Your task to perform on an android device: Do I have any events today? Image 0: 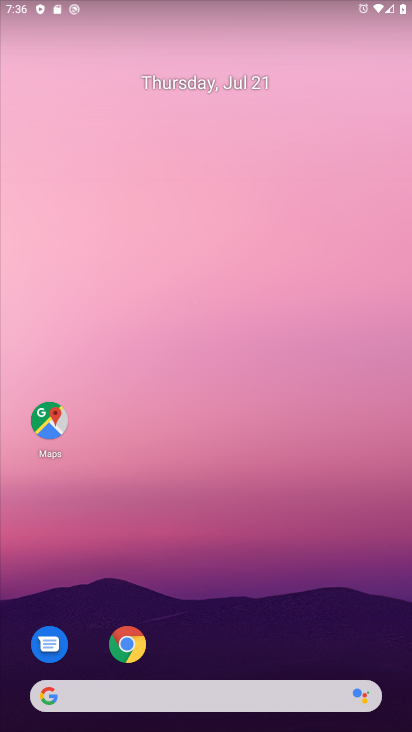
Step 0: drag from (238, 617) to (231, 173)
Your task to perform on an android device: Do I have any events today? Image 1: 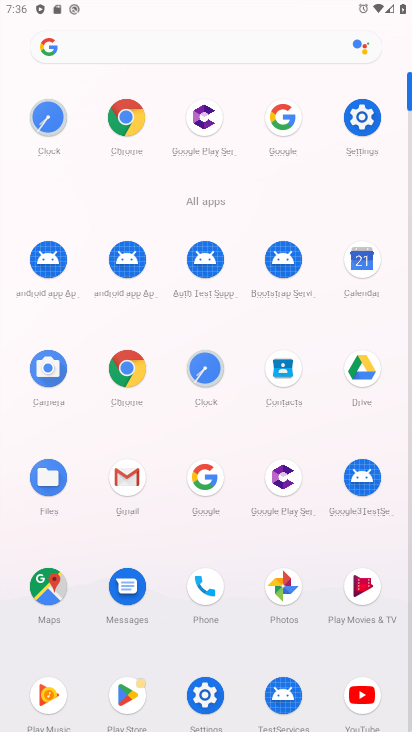
Step 1: click (360, 244)
Your task to perform on an android device: Do I have any events today? Image 2: 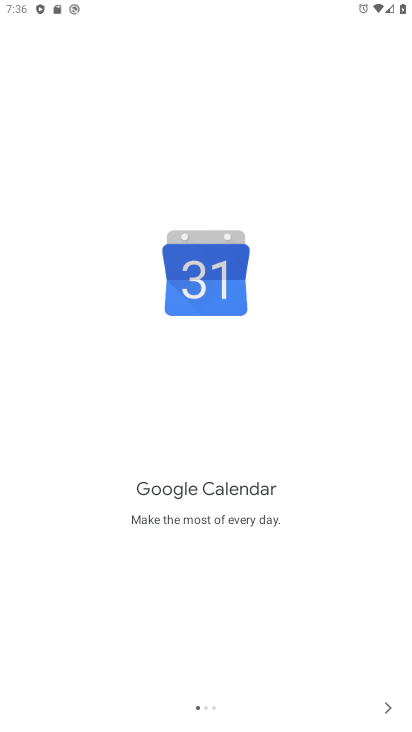
Step 2: click (387, 706)
Your task to perform on an android device: Do I have any events today? Image 3: 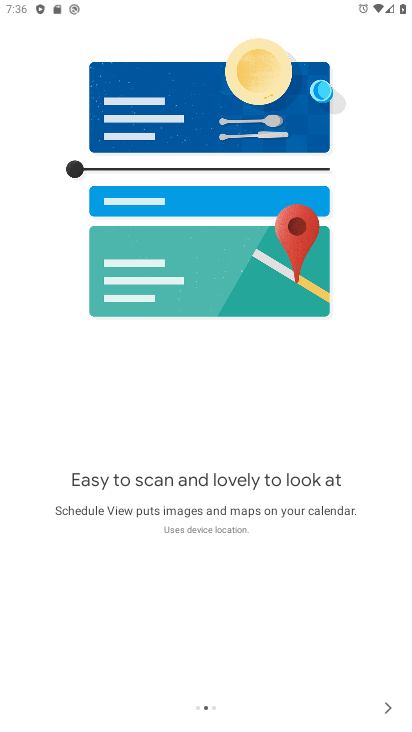
Step 3: click (387, 706)
Your task to perform on an android device: Do I have any events today? Image 4: 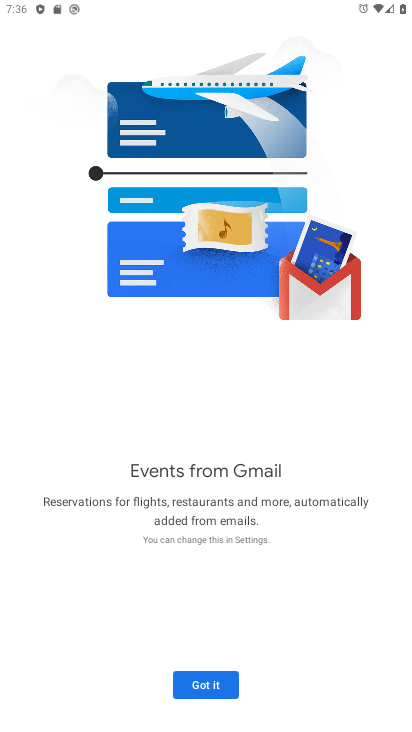
Step 4: click (220, 686)
Your task to perform on an android device: Do I have any events today? Image 5: 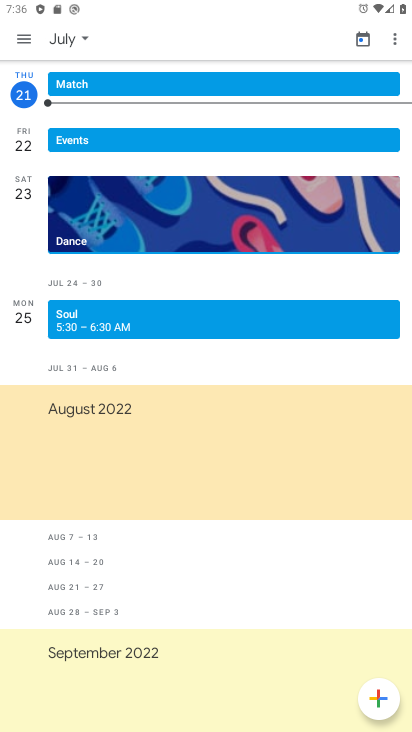
Step 5: click (20, 21)
Your task to perform on an android device: Do I have any events today? Image 6: 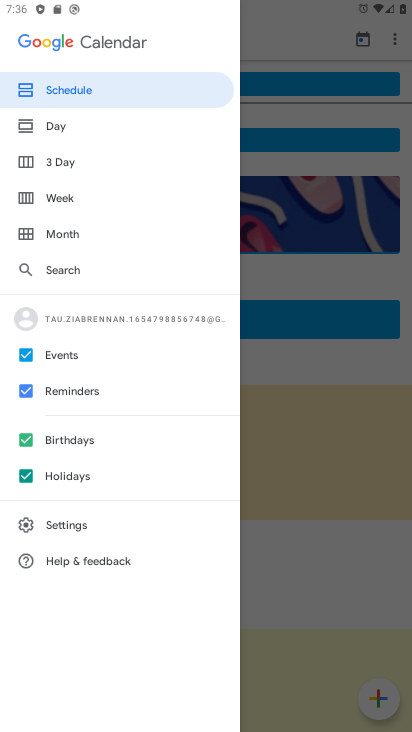
Step 6: click (74, 235)
Your task to perform on an android device: Do I have any events today? Image 7: 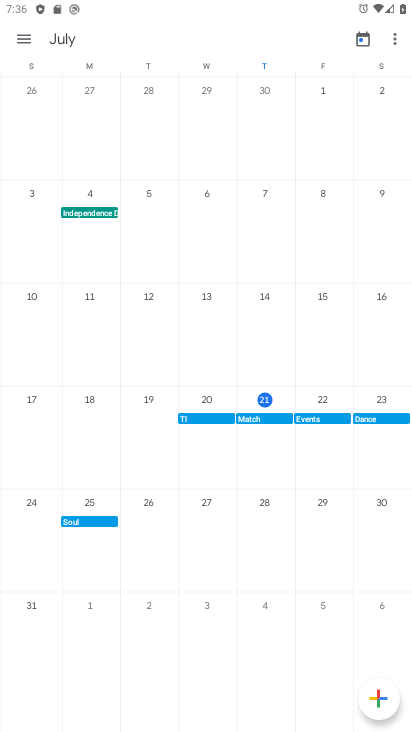
Step 7: click (314, 406)
Your task to perform on an android device: Do I have any events today? Image 8: 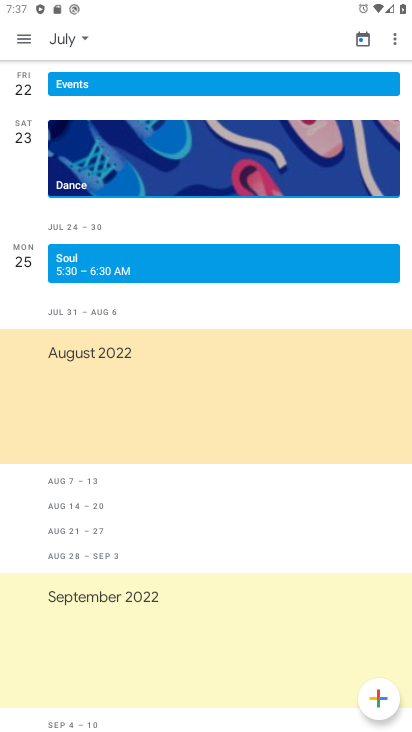
Step 8: task complete